Your task to perform on an android device: turn on translation in the chrome app Image 0: 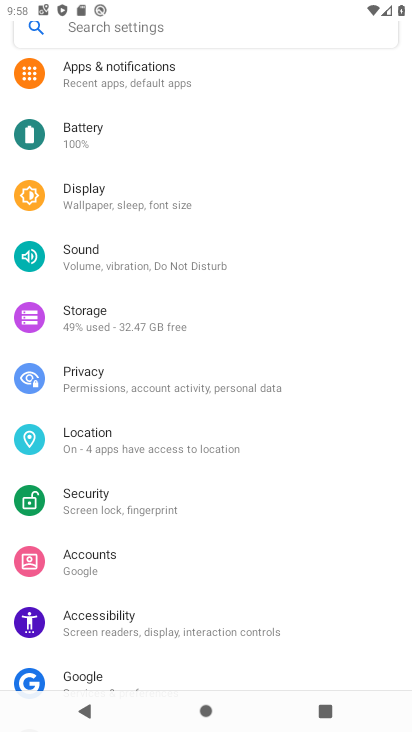
Step 0: press home button
Your task to perform on an android device: turn on translation in the chrome app Image 1: 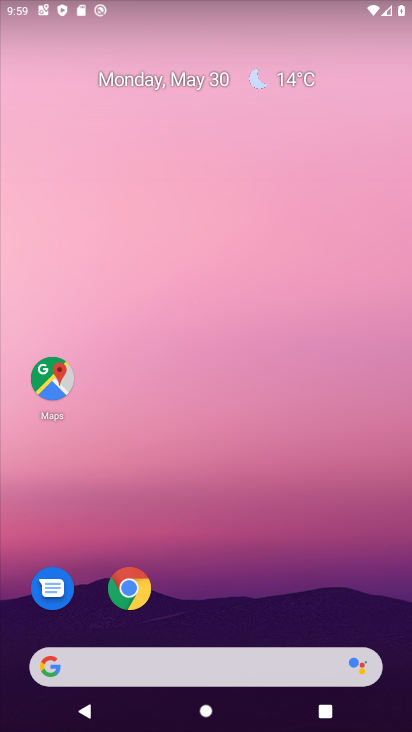
Step 1: click (138, 582)
Your task to perform on an android device: turn on translation in the chrome app Image 2: 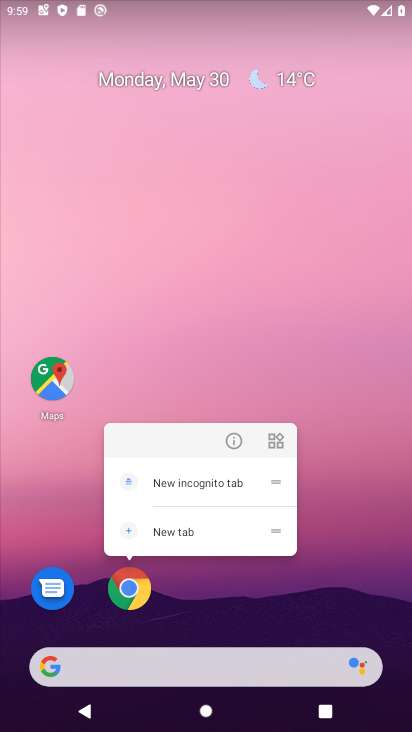
Step 2: click (138, 584)
Your task to perform on an android device: turn on translation in the chrome app Image 3: 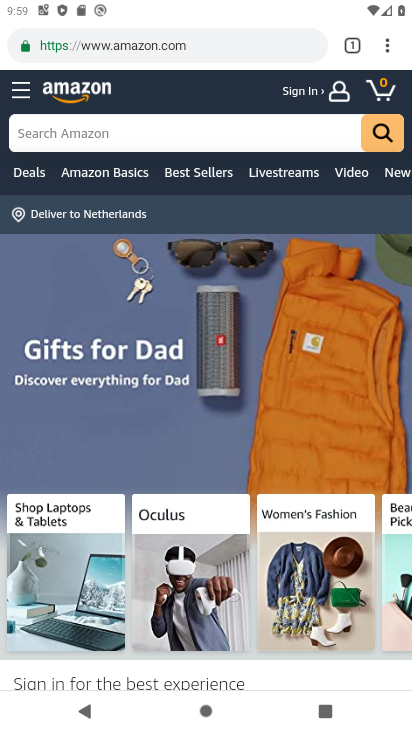
Step 3: click (382, 51)
Your task to perform on an android device: turn on translation in the chrome app Image 4: 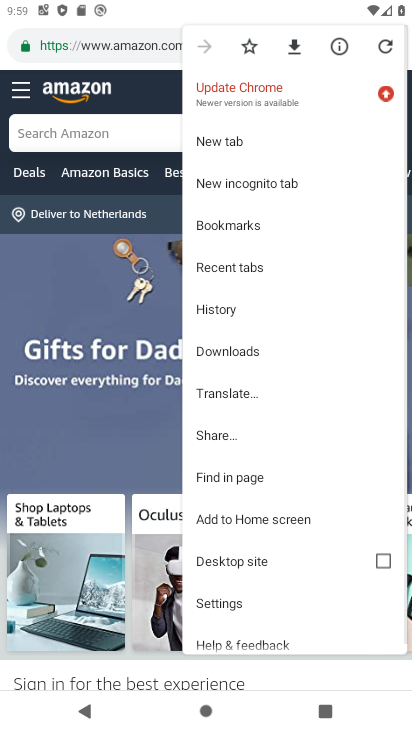
Step 4: click (232, 600)
Your task to perform on an android device: turn on translation in the chrome app Image 5: 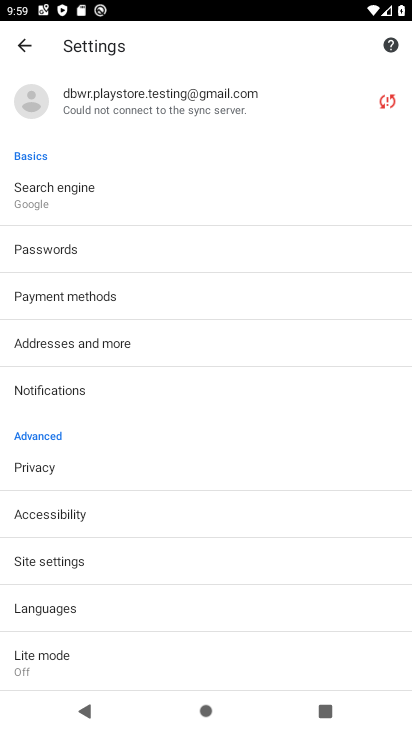
Step 5: drag from (107, 588) to (153, 285)
Your task to perform on an android device: turn on translation in the chrome app Image 6: 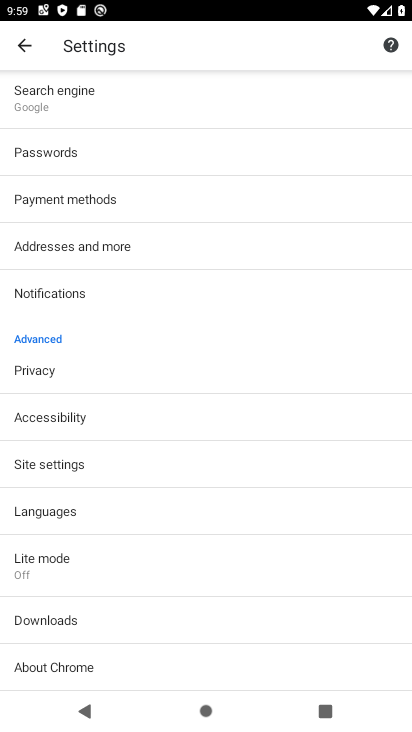
Step 6: click (65, 517)
Your task to perform on an android device: turn on translation in the chrome app Image 7: 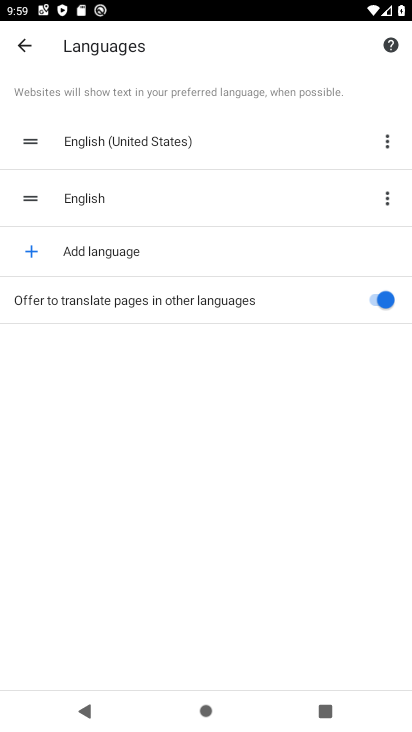
Step 7: task complete